Your task to perform on an android device: Go to Maps Image 0: 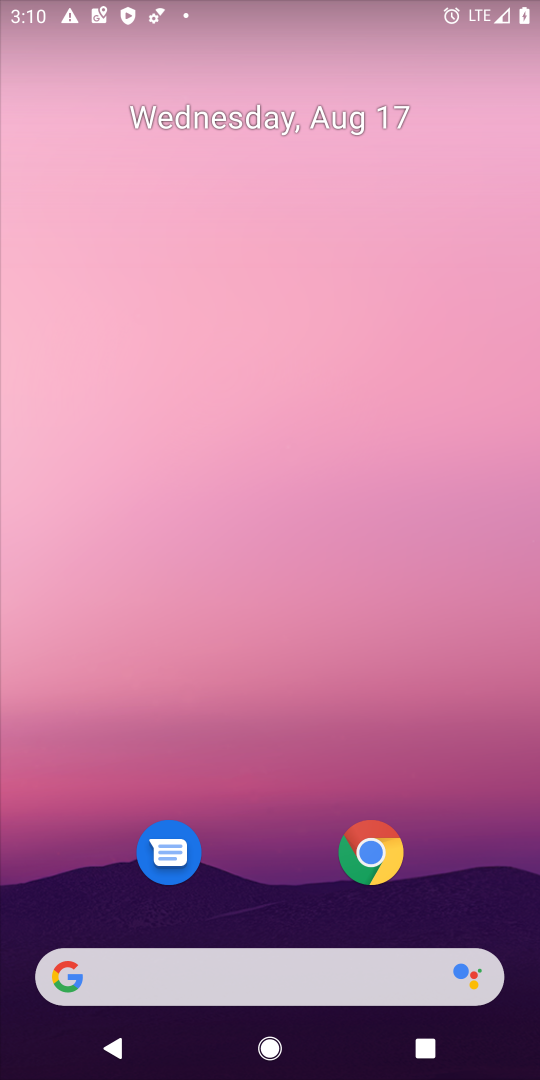
Step 0: drag from (271, 871) to (267, 2)
Your task to perform on an android device: Go to Maps Image 1: 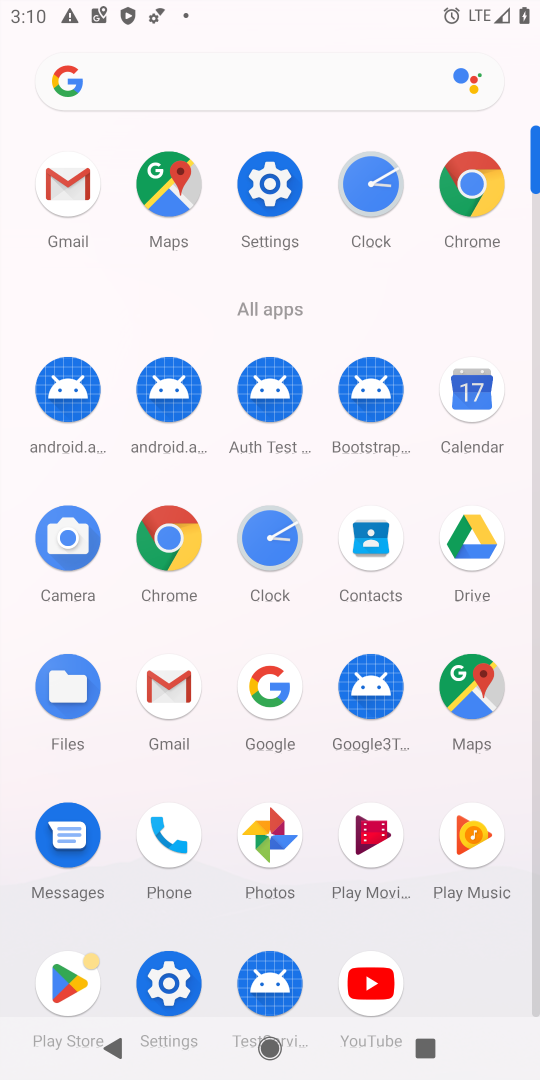
Step 1: click (456, 685)
Your task to perform on an android device: Go to Maps Image 2: 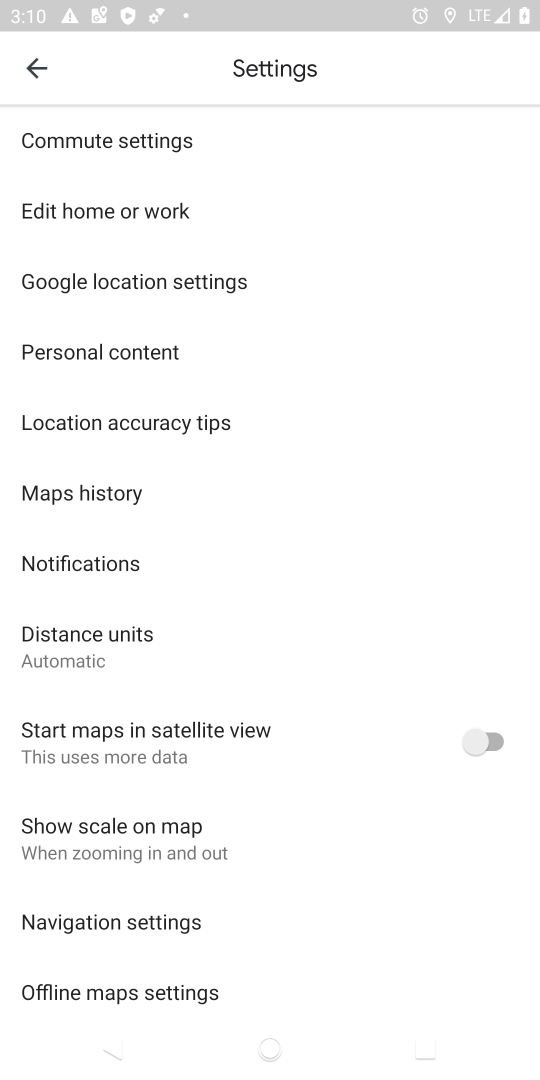
Step 2: task complete